Your task to perform on an android device: Open settings Image 0: 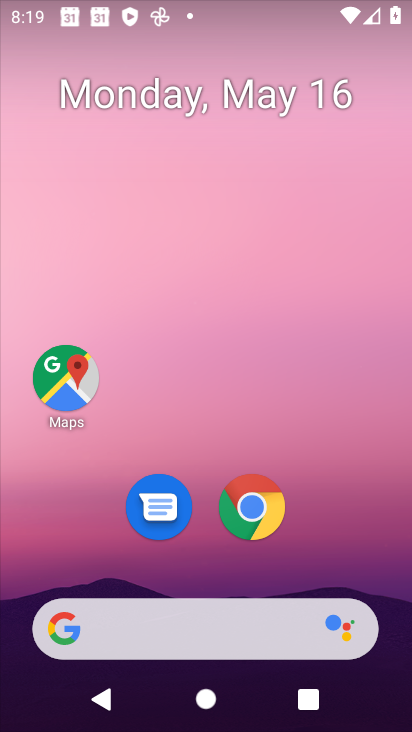
Step 0: drag from (296, 523) to (347, 82)
Your task to perform on an android device: Open settings Image 1: 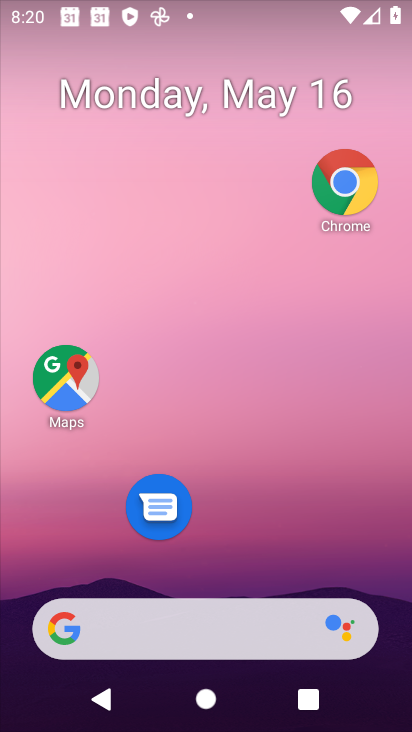
Step 1: click (289, 560)
Your task to perform on an android device: Open settings Image 2: 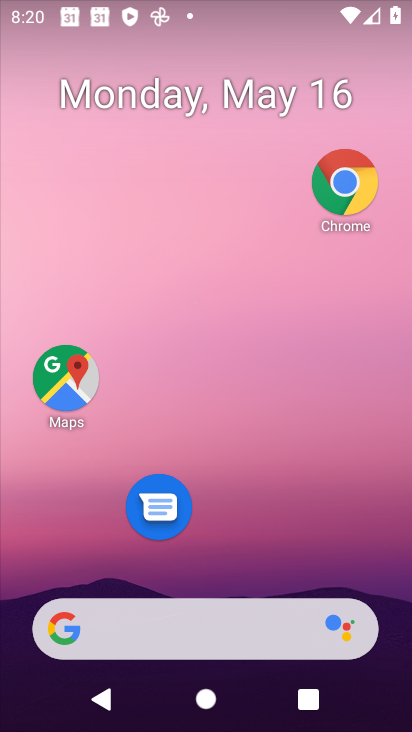
Step 2: drag from (289, 560) to (287, 67)
Your task to perform on an android device: Open settings Image 3: 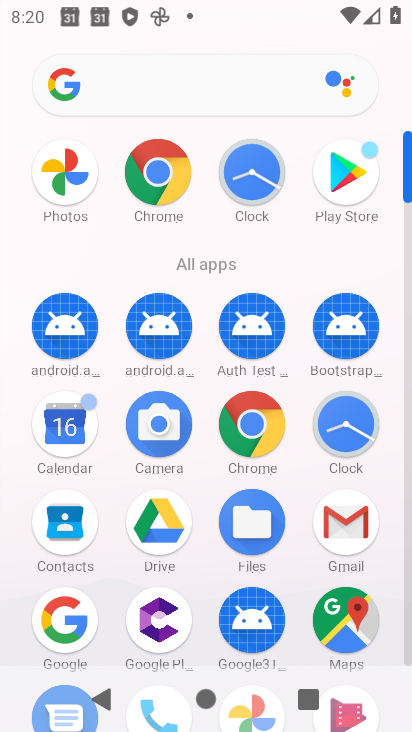
Step 3: drag from (327, 129) to (332, 1)
Your task to perform on an android device: Open settings Image 4: 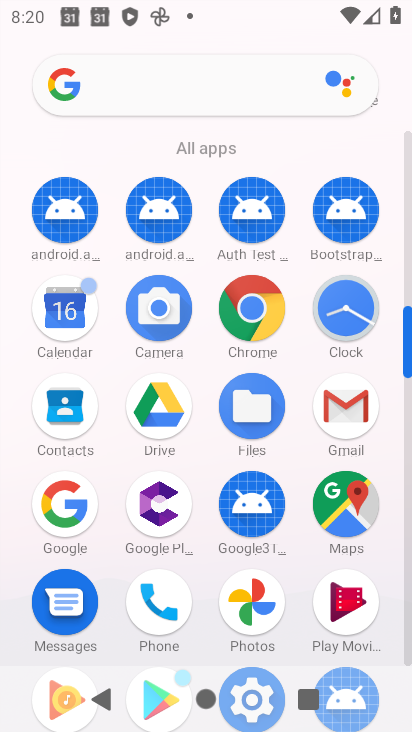
Step 4: drag from (282, 147) to (317, 5)
Your task to perform on an android device: Open settings Image 5: 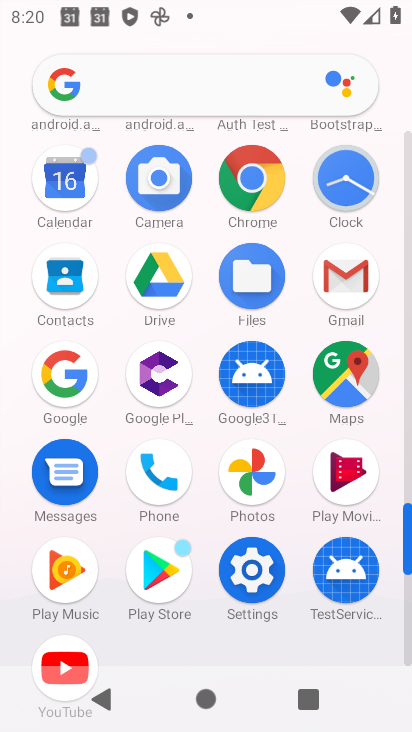
Step 5: click (257, 619)
Your task to perform on an android device: Open settings Image 6: 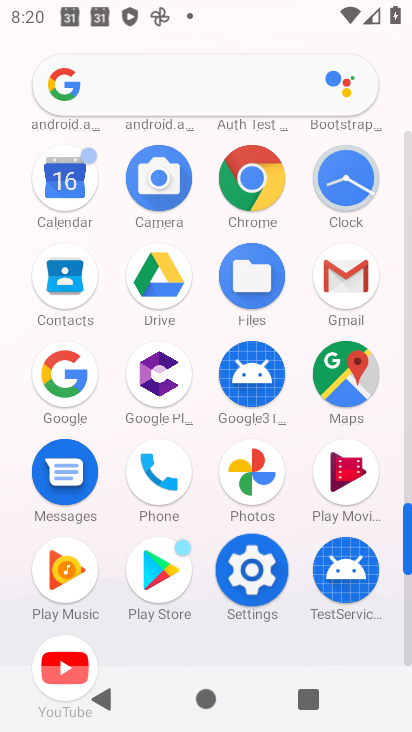
Step 6: click (258, 594)
Your task to perform on an android device: Open settings Image 7: 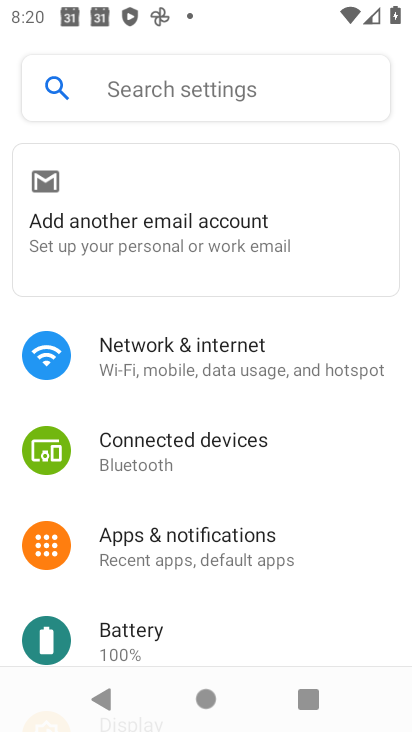
Step 7: task complete